Your task to perform on an android device: Is it going to rain this weekend? Image 0: 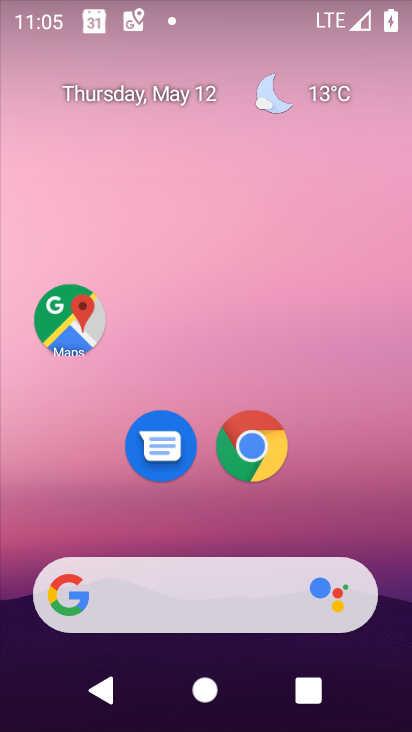
Step 0: drag from (252, 579) to (215, 22)
Your task to perform on an android device: Is it going to rain this weekend? Image 1: 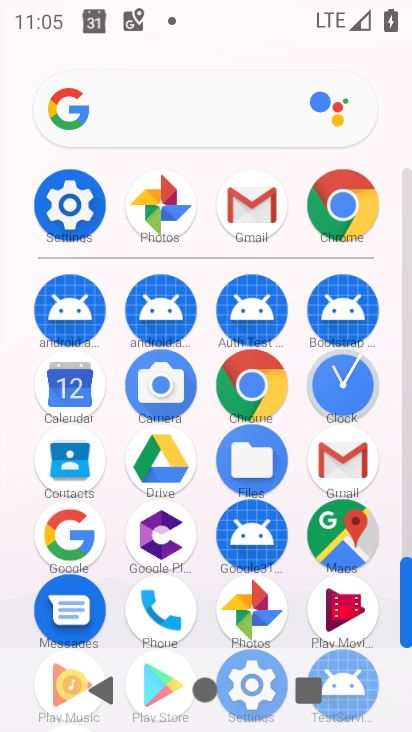
Step 1: click (275, 373)
Your task to perform on an android device: Is it going to rain this weekend? Image 2: 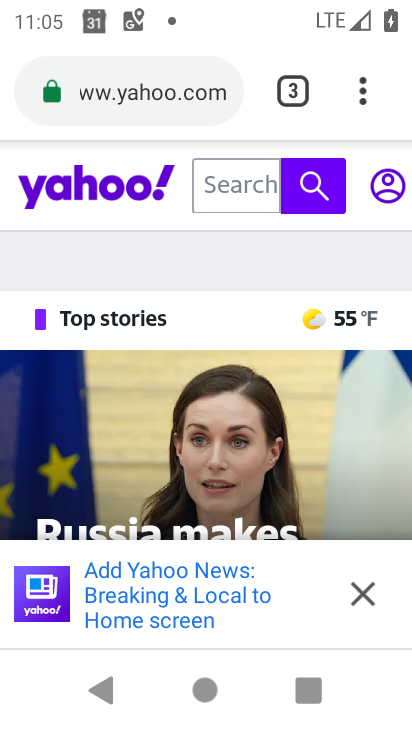
Step 2: click (176, 85)
Your task to perform on an android device: Is it going to rain this weekend? Image 3: 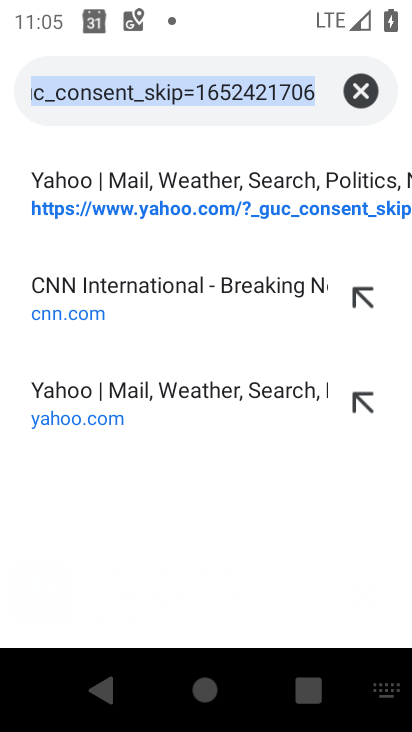
Step 3: click (360, 94)
Your task to perform on an android device: Is it going to rain this weekend? Image 4: 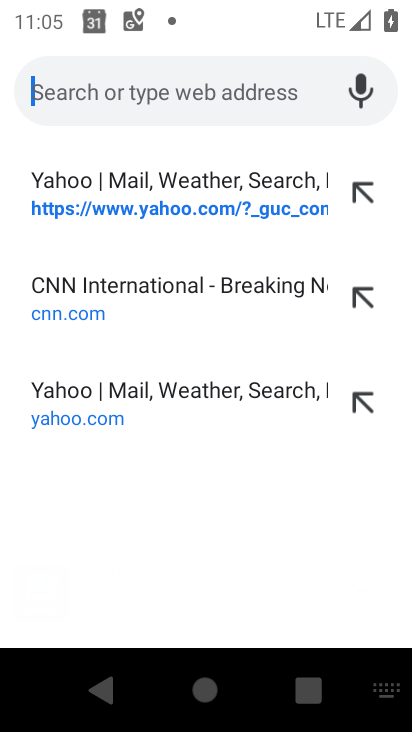
Step 4: type "is it going to rain this weekend"
Your task to perform on an android device: Is it going to rain this weekend? Image 5: 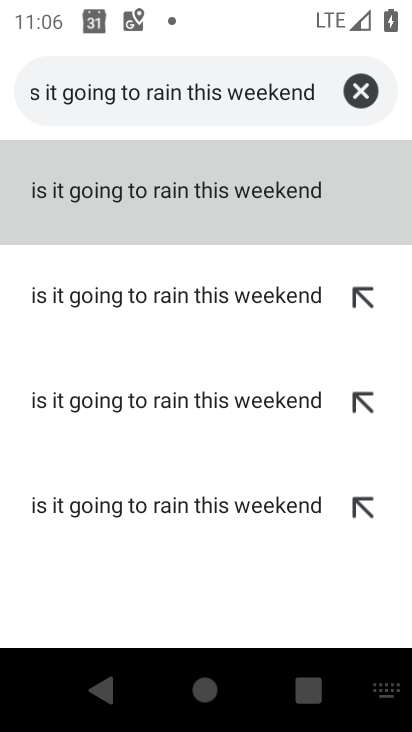
Step 5: click (207, 195)
Your task to perform on an android device: Is it going to rain this weekend? Image 6: 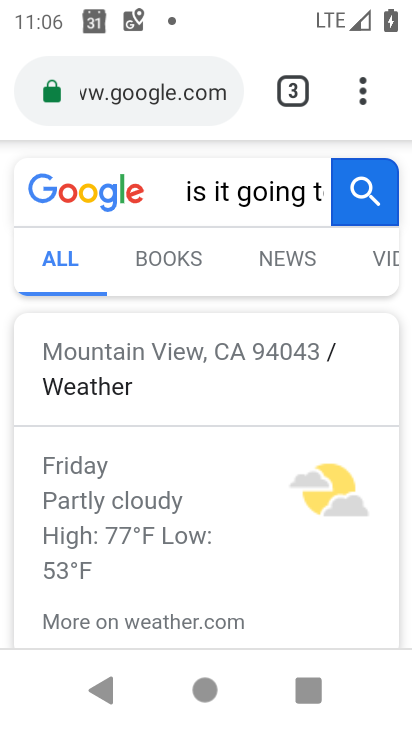
Step 6: task complete